Your task to perform on an android device: turn on location history Image 0: 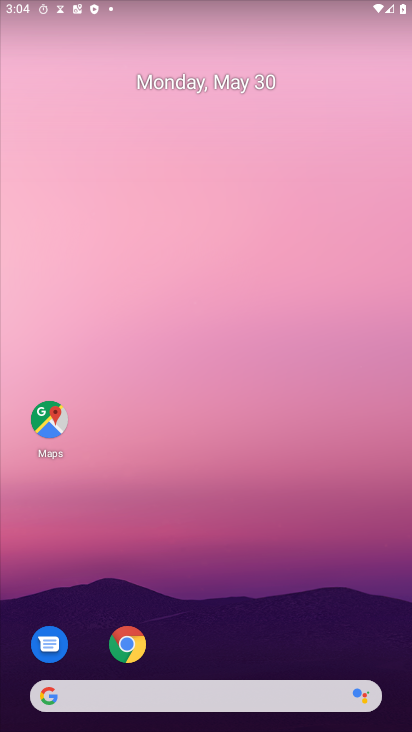
Step 0: press home button
Your task to perform on an android device: turn on location history Image 1: 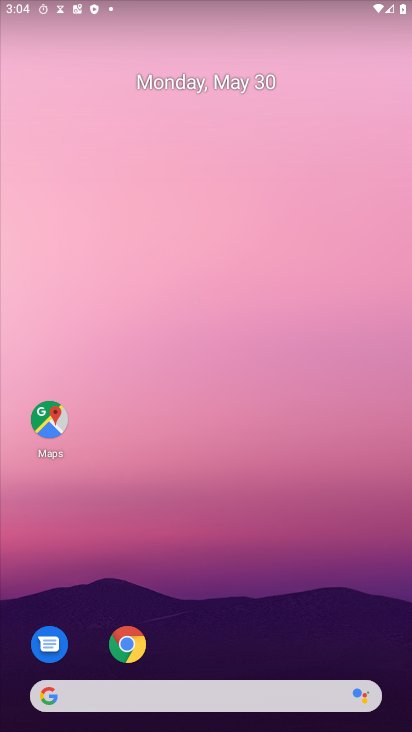
Step 1: click (261, 70)
Your task to perform on an android device: turn on location history Image 2: 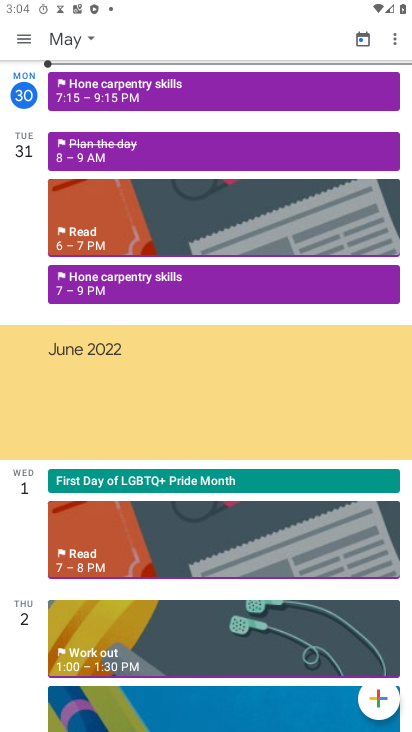
Step 2: press home button
Your task to perform on an android device: turn on location history Image 3: 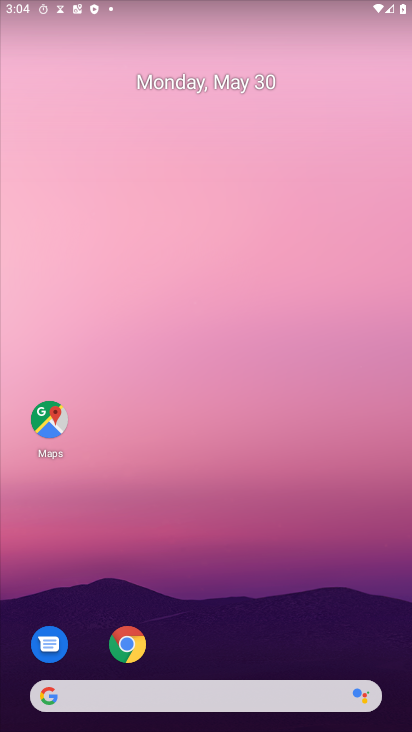
Step 3: drag from (285, 647) to (295, 180)
Your task to perform on an android device: turn on location history Image 4: 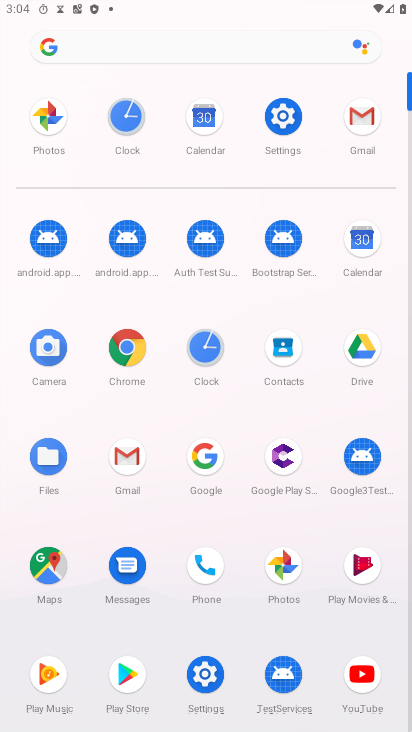
Step 4: click (289, 132)
Your task to perform on an android device: turn on location history Image 5: 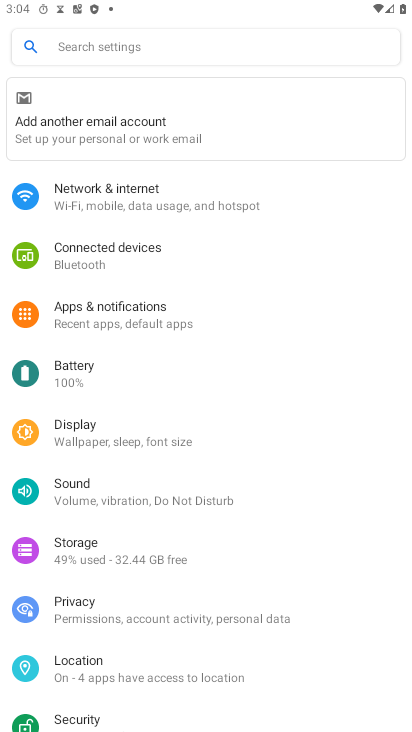
Step 5: click (85, 664)
Your task to perform on an android device: turn on location history Image 6: 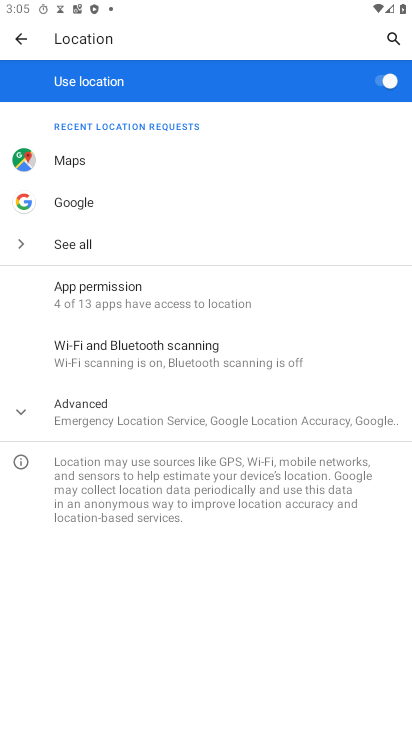
Step 6: click (88, 410)
Your task to perform on an android device: turn on location history Image 7: 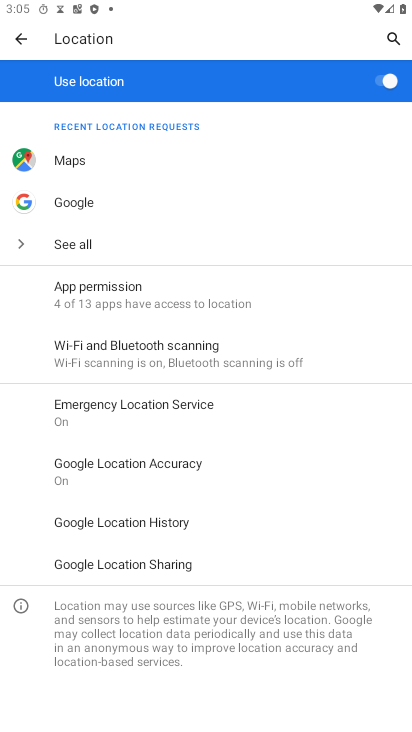
Step 7: click (145, 521)
Your task to perform on an android device: turn on location history Image 8: 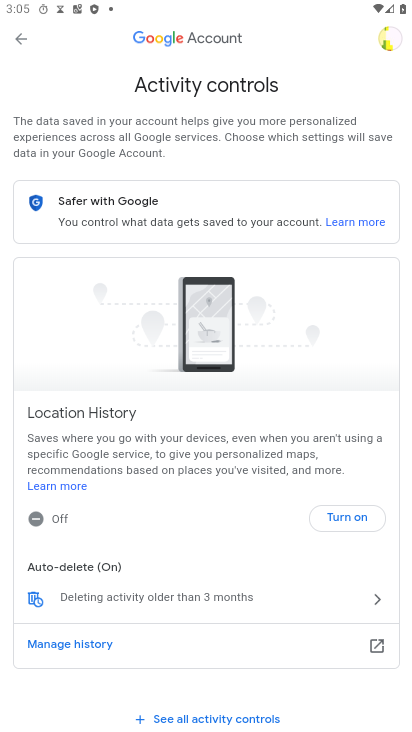
Step 8: task complete